Your task to perform on an android device: turn off sleep mode Image 0: 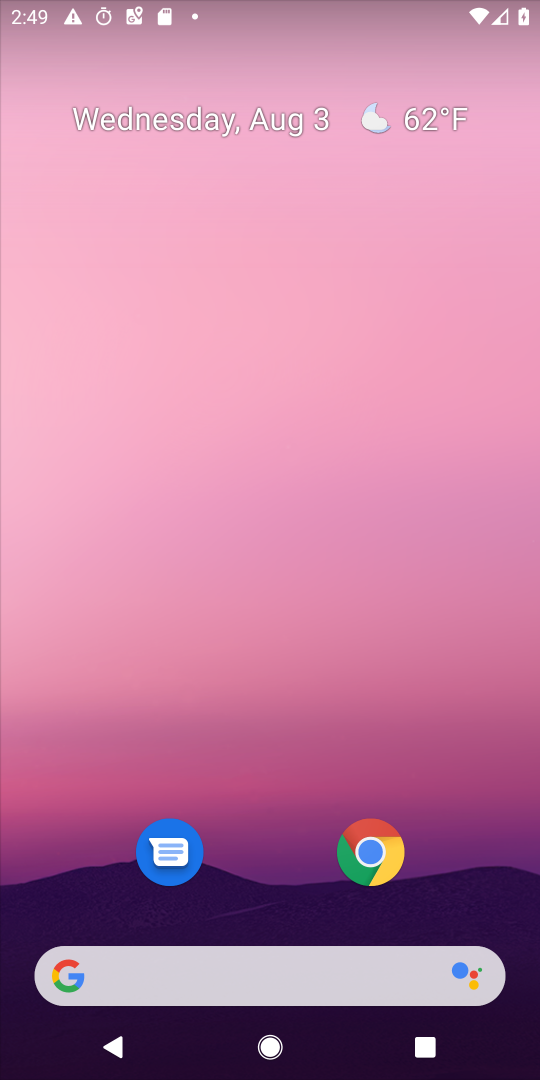
Step 0: drag from (532, 944) to (284, 88)
Your task to perform on an android device: turn off sleep mode Image 1: 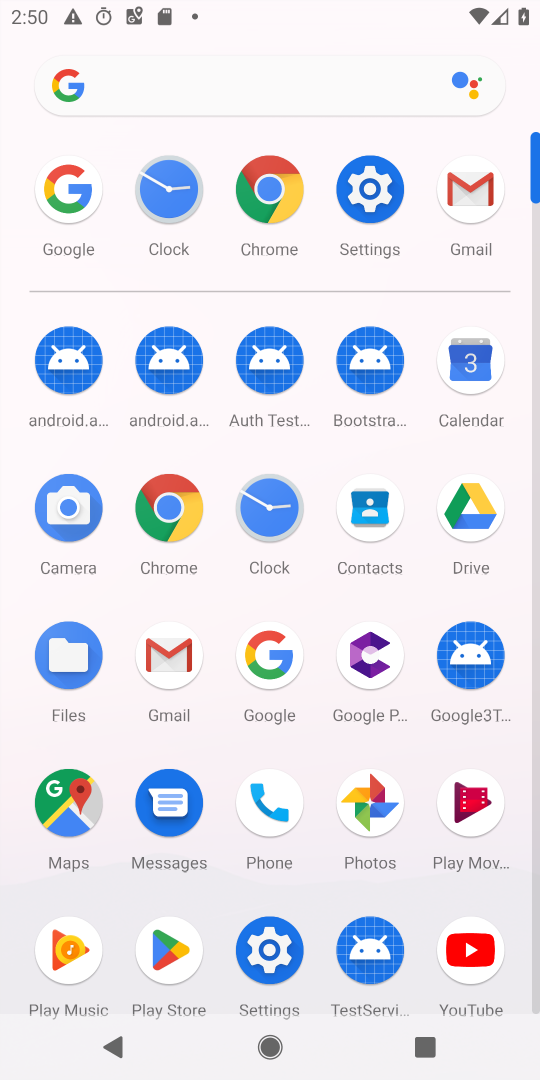
Step 1: click (280, 935)
Your task to perform on an android device: turn off sleep mode Image 2: 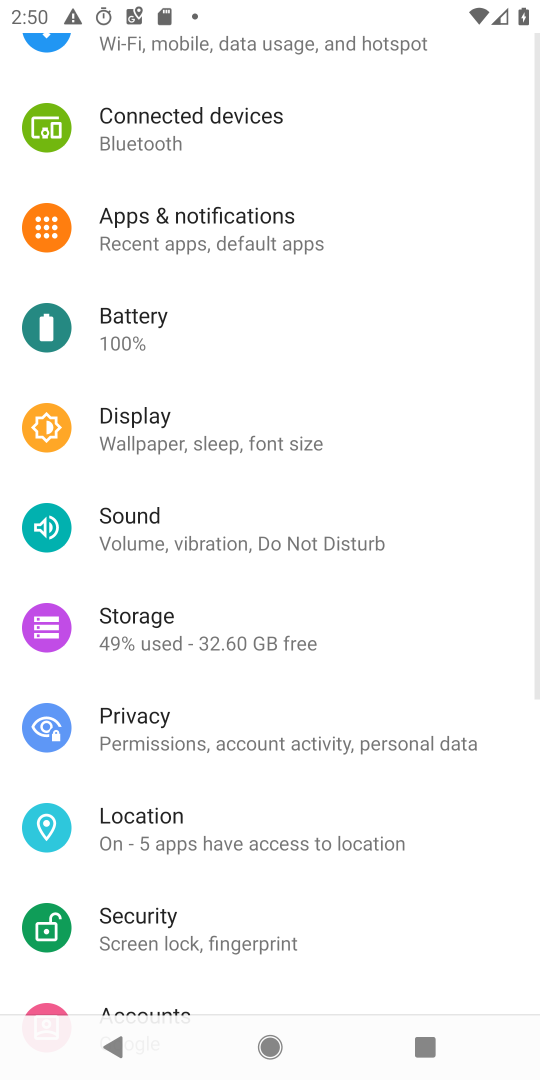
Step 2: task complete